Your task to perform on an android device: Go to Android settings Image 0: 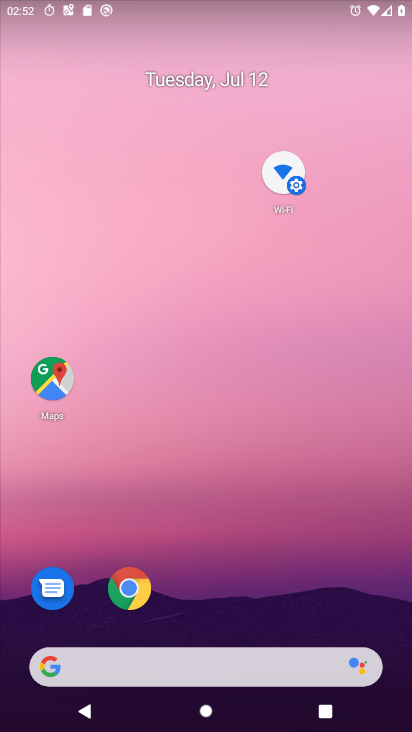
Step 0: drag from (223, 628) to (268, 37)
Your task to perform on an android device: Go to Android settings Image 1: 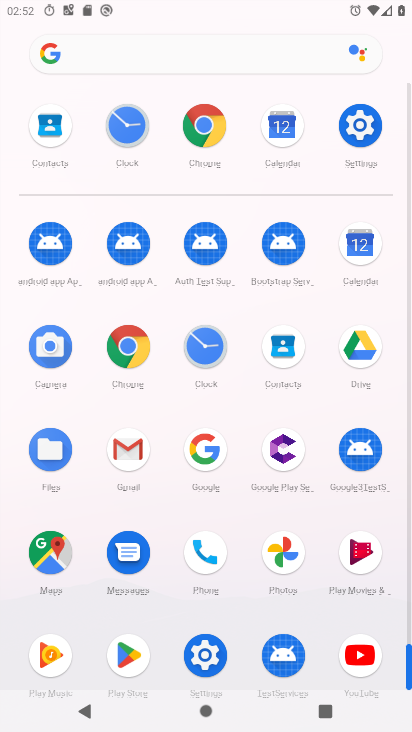
Step 1: click (213, 651)
Your task to perform on an android device: Go to Android settings Image 2: 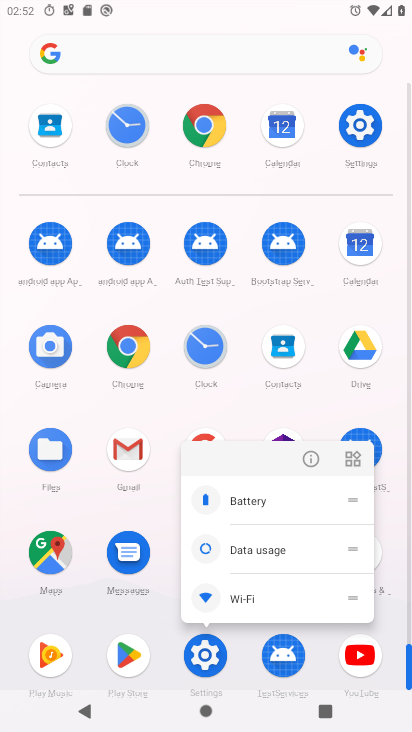
Step 2: click (307, 459)
Your task to perform on an android device: Go to Android settings Image 3: 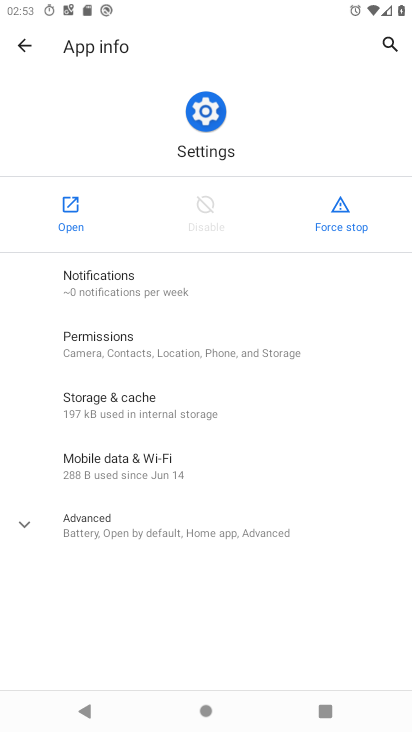
Step 3: click (74, 207)
Your task to perform on an android device: Go to Android settings Image 4: 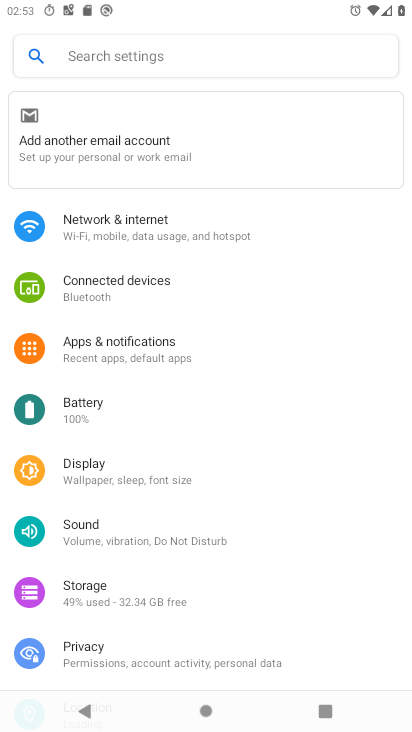
Step 4: drag from (200, 654) to (227, 206)
Your task to perform on an android device: Go to Android settings Image 5: 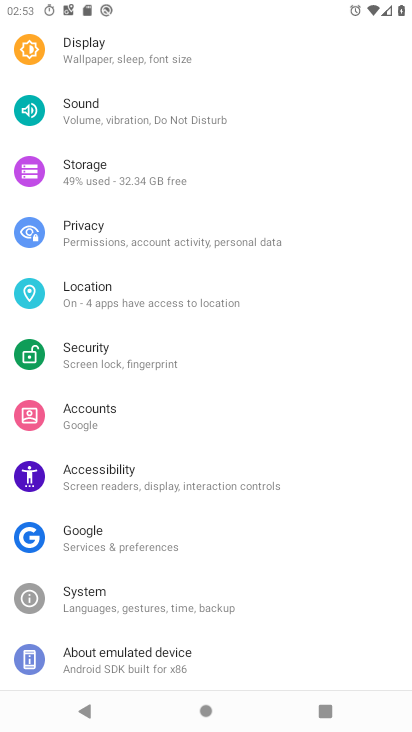
Step 5: click (137, 653)
Your task to perform on an android device: Go to Android settings Image 6: 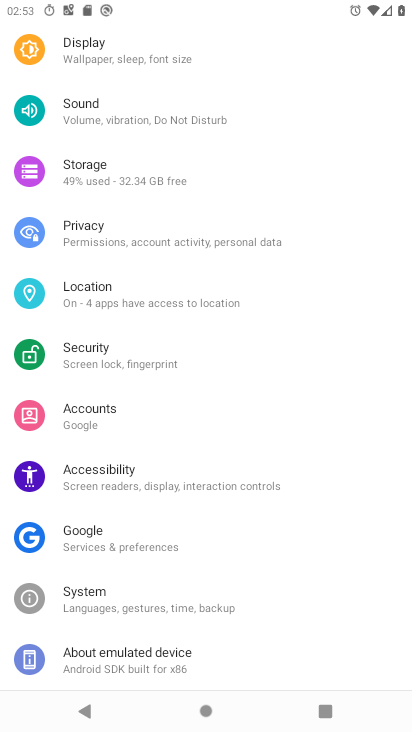
Step 6: click (136, 653)
Your task to perform on an android device: Go to Android settings Image 7: 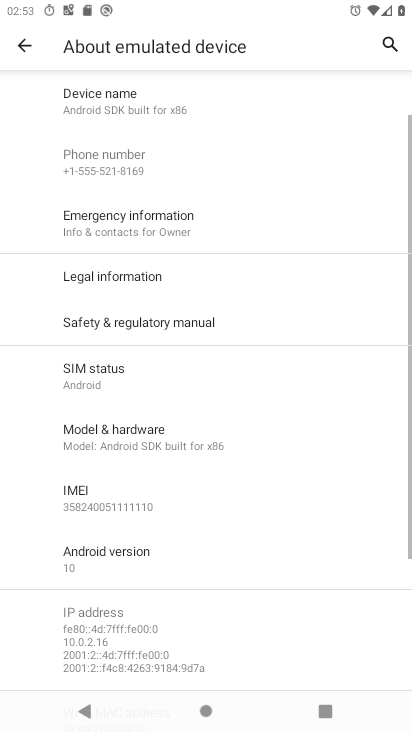
Step 7: click (132, 551)
Your task to perform on an android device: Go to Android settings Image 8: 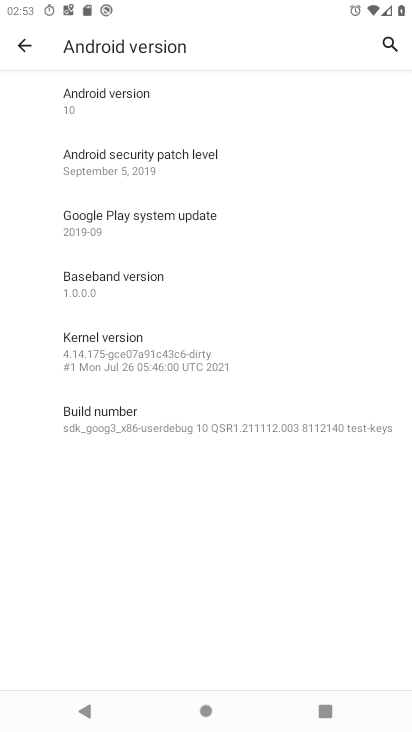
Step 8: drag from (150, 551) to (213, 182)
Your task to perform on an android device: Go to Android settings Image 9: 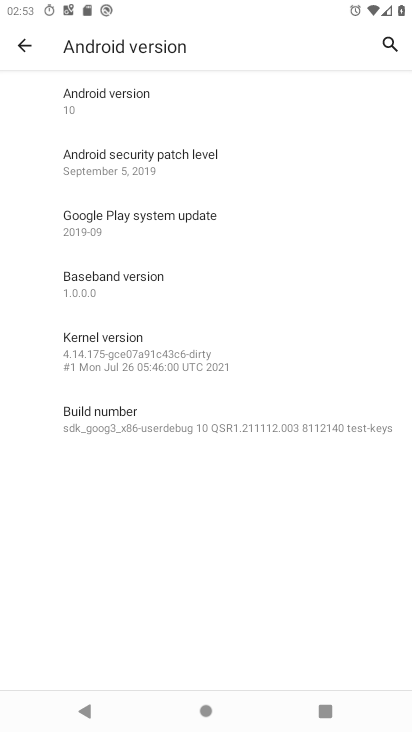
Step 9: drag from (203, 509) to (269, 156)
Your task to perform on an android device: Go to Android settings Image 10: 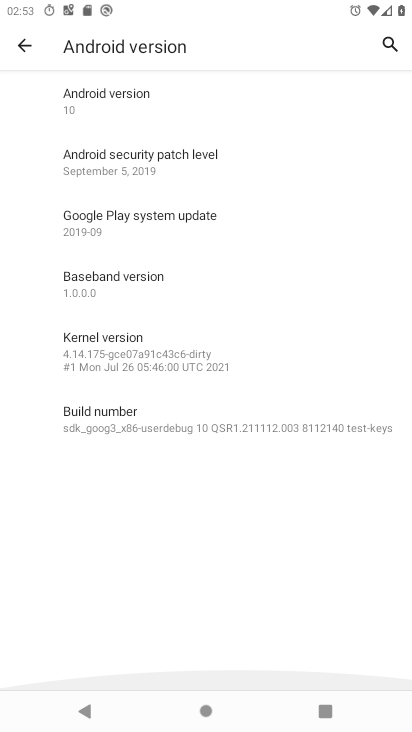
Step 10: click (196, 98)
Your task to perform on an android device: Go to Android settings Image 11: 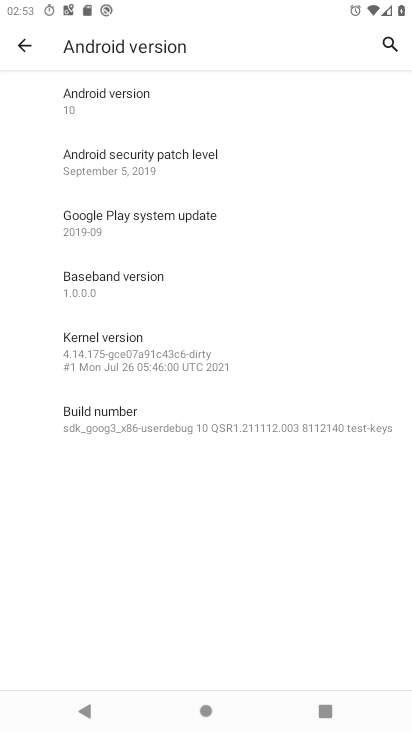
Step 11: task complete